Your task to perform on an android device: choose inbox layout in the gmail app Image 0: 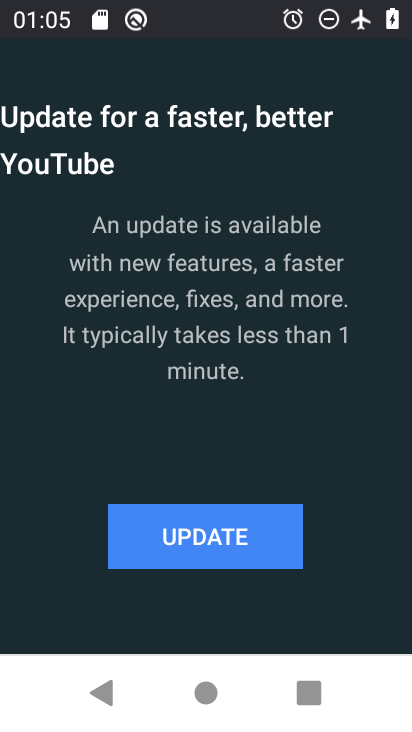
Step 0: press home button
Your task to perform on an android device: choose inbox layout in the gmail app Image 1: 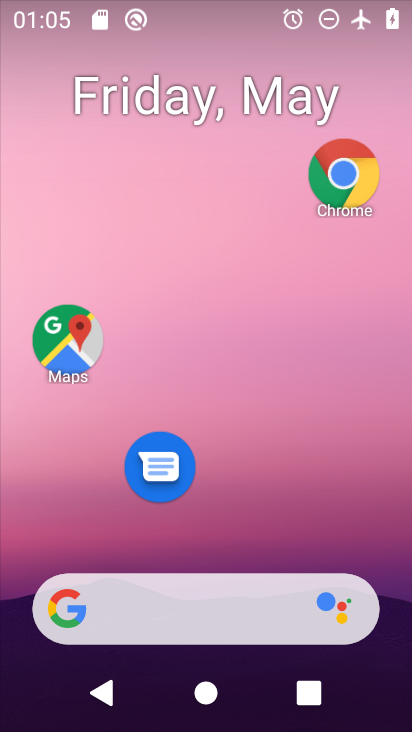
Step 1: drag from (276, 526) to (308, 186)
Your task to perform on an android device: choose inbox layout in the gmail app Image 2: 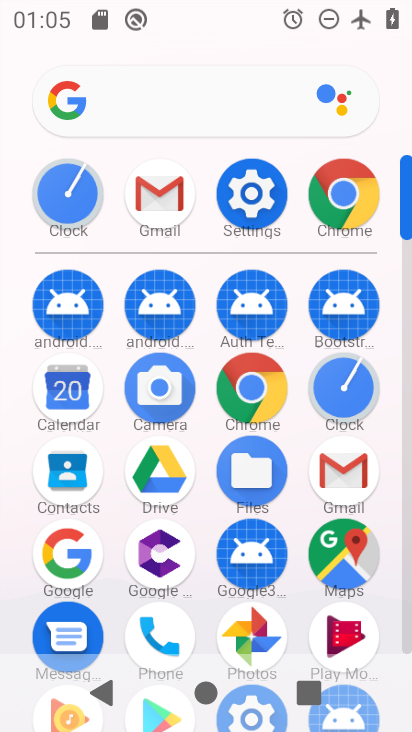
Step 2: click (339, 478)
Your task to perform on an android device: choose inbox layout in the gmail app Image 3: 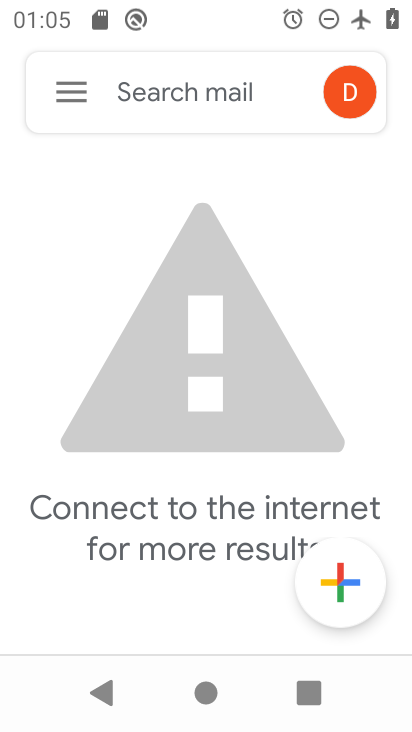
Step 3: click (57, 87)
Your task to perform on an android device: choose inbox layout in the gmail app Image 4: 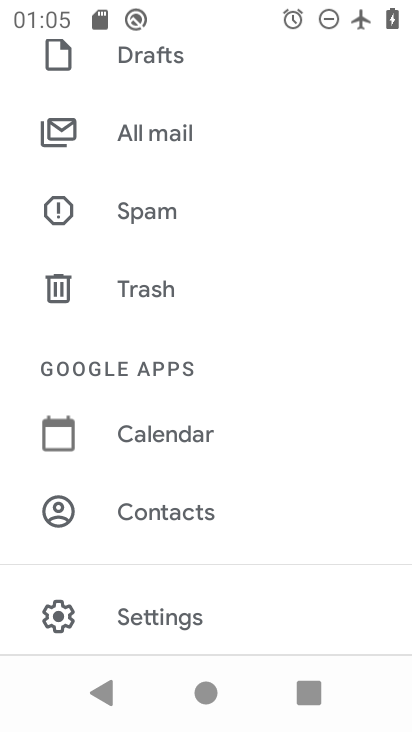
Step 4: click (150, 596)
Your task to perform on an android device: choose inbox layout in the gmail app Image 5: 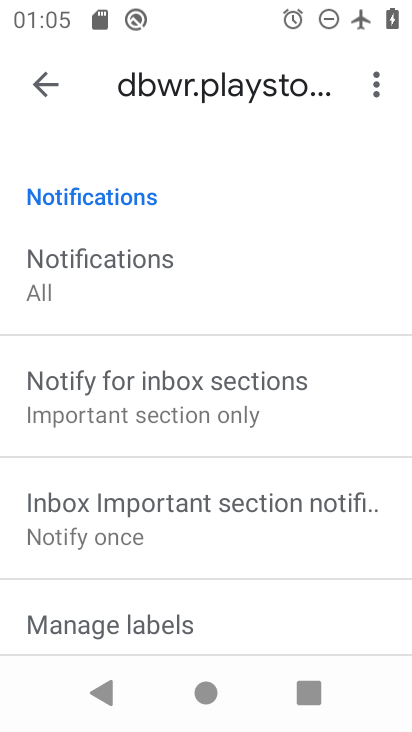
Step 5: drag from (147, 537) to (149, 639)
Your task to perform on an android device: choose inbox layout in the gmail app Image 6: 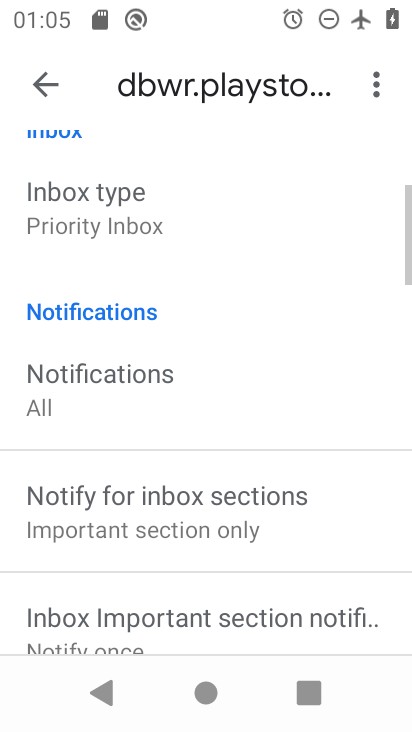
Step 6: drag from (188, 248) to (168, 394)
Your task to perform on an android device: choose inbox layout in the gmail app Image 7: 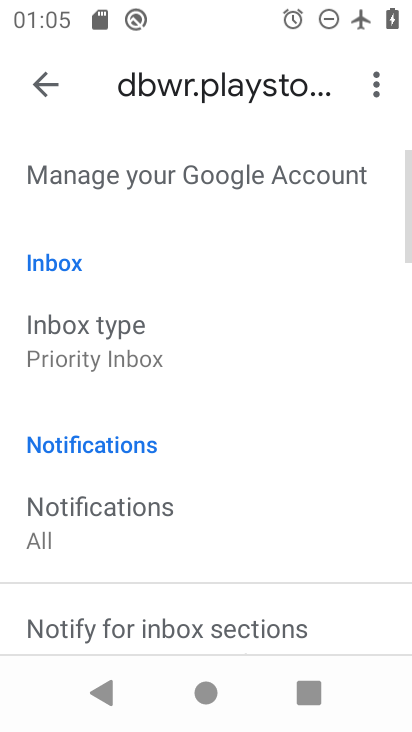
Step 7: click (94, 328)
Your task to perform on an android device: choose inbox layout in the gmail app Image 8: 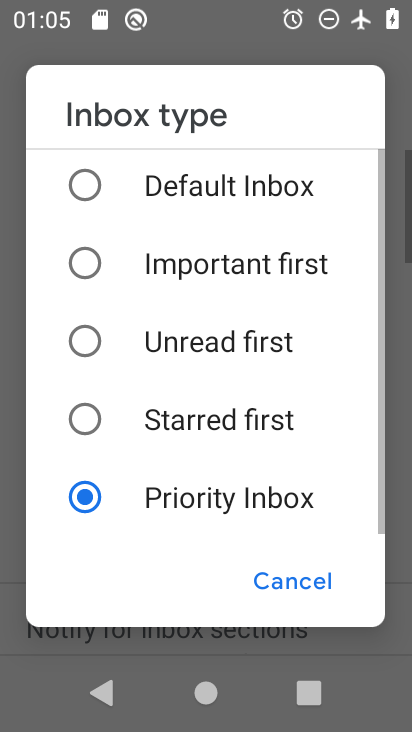
Step 8: click (160, 338)
Your task to perform on an android device: choose inbox layout in the gmail app Image 9: 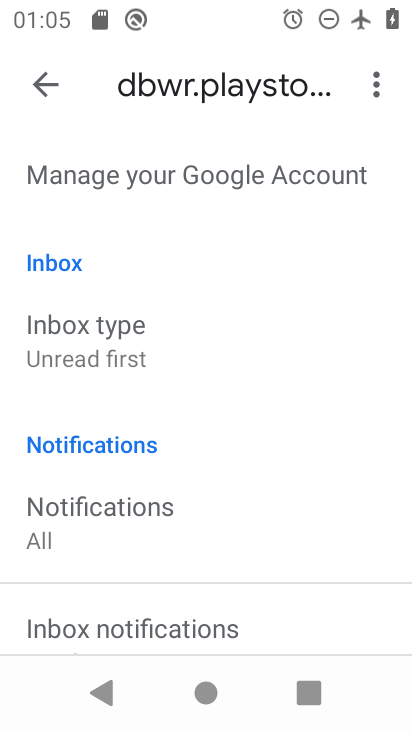
Step 9: task complete